Your task to perform on an android device: install app "Expedia: Hotels, Flights & Car" Image 0: 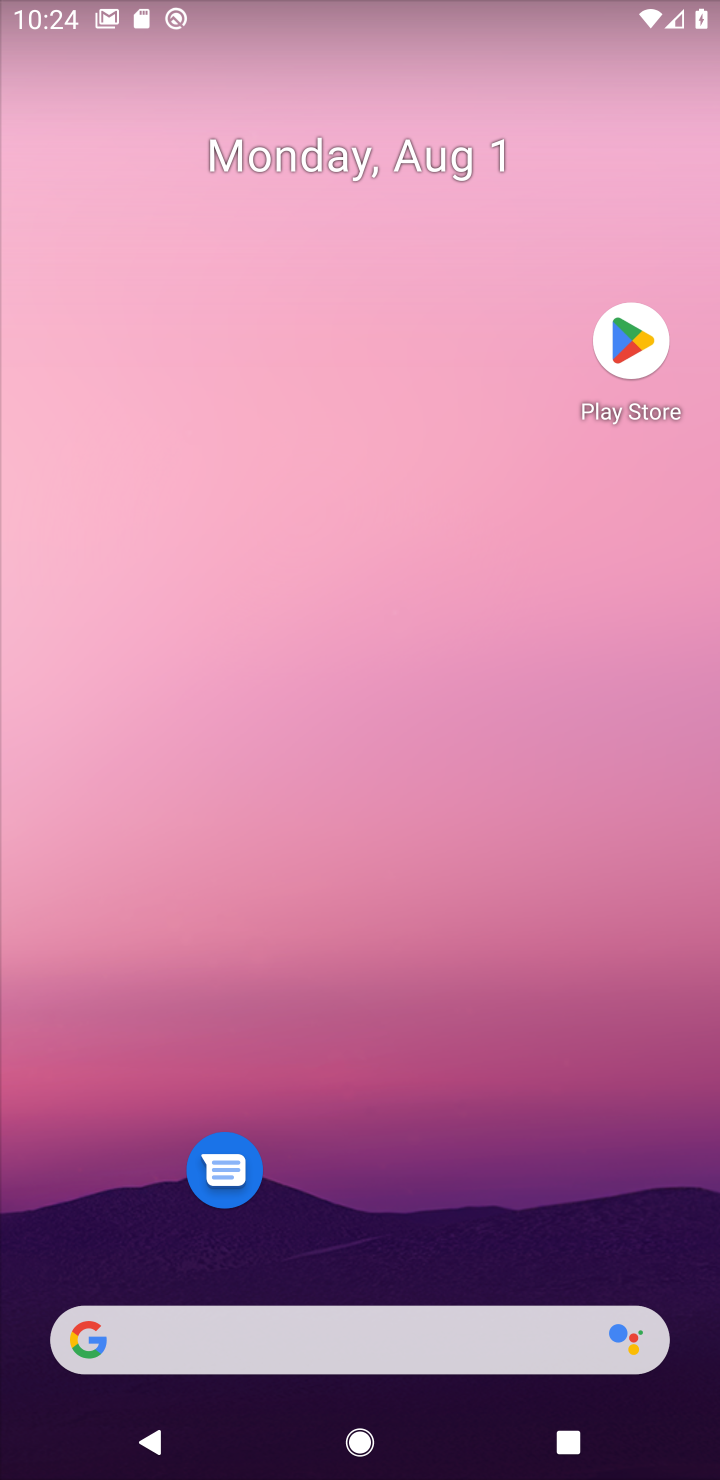
Step 0: drag from (312, 978) to (436, 61)
Your task to perform on an android device: install app "Expedia: Hotels, Flights & Car" Image 1: 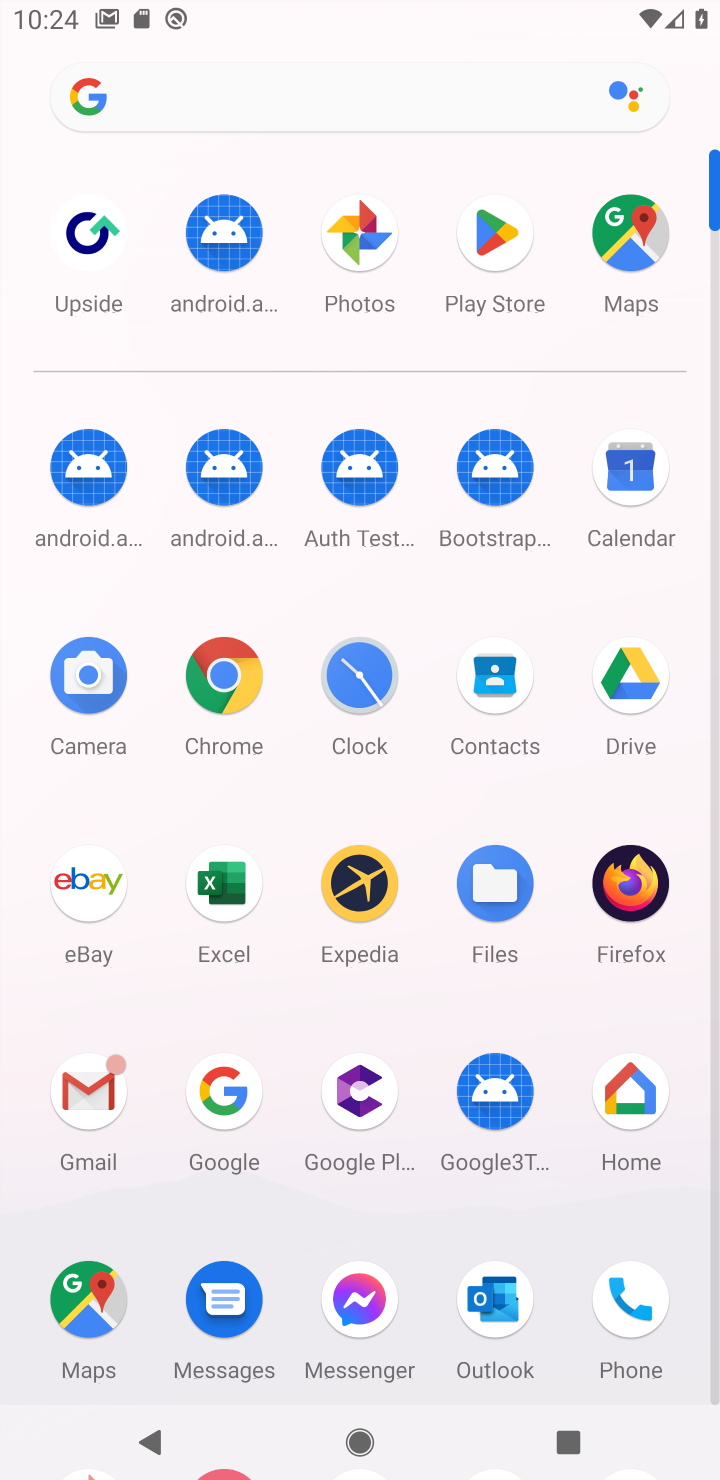
Step 1: click (518, 241)
Your task to perform on an android device: install app "Expedia: Hotels, Flights & Car" Image 2: 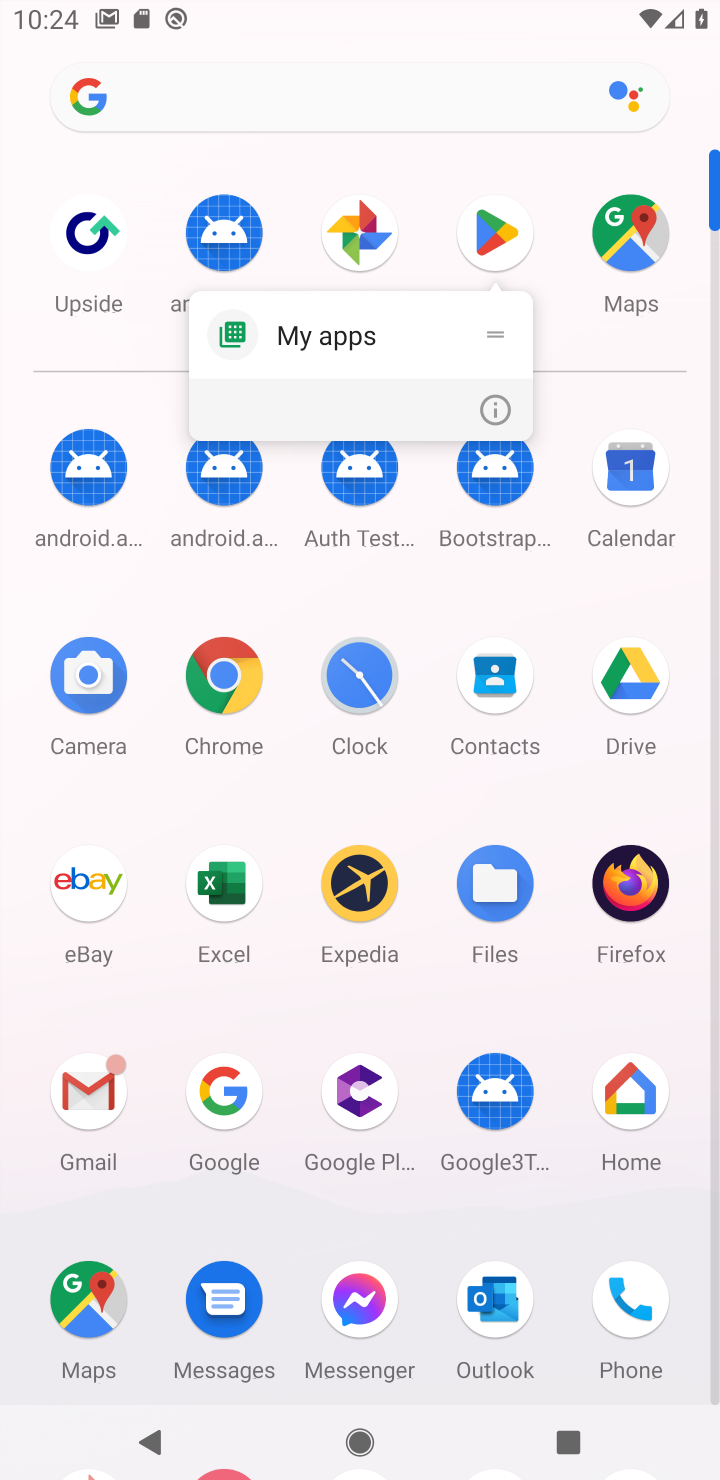
Step 2: click (340, 329)
Your task to perform on an android device: install app "Expedia: Hotels, Flights & Car" Image 3: 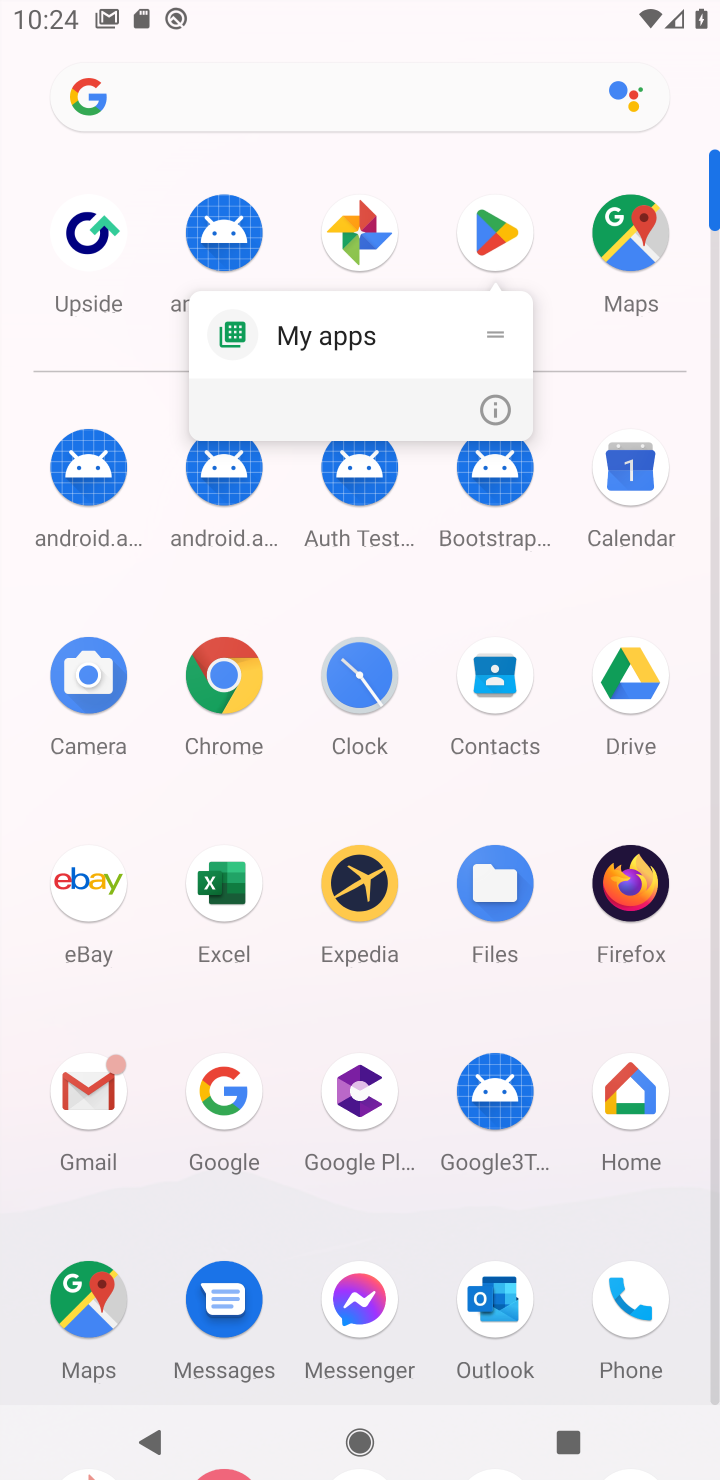
Step 3: click (340, 331)
Your task to perform on an android device: install app "Expedia: Hotels, Flights & Car" Image 4: 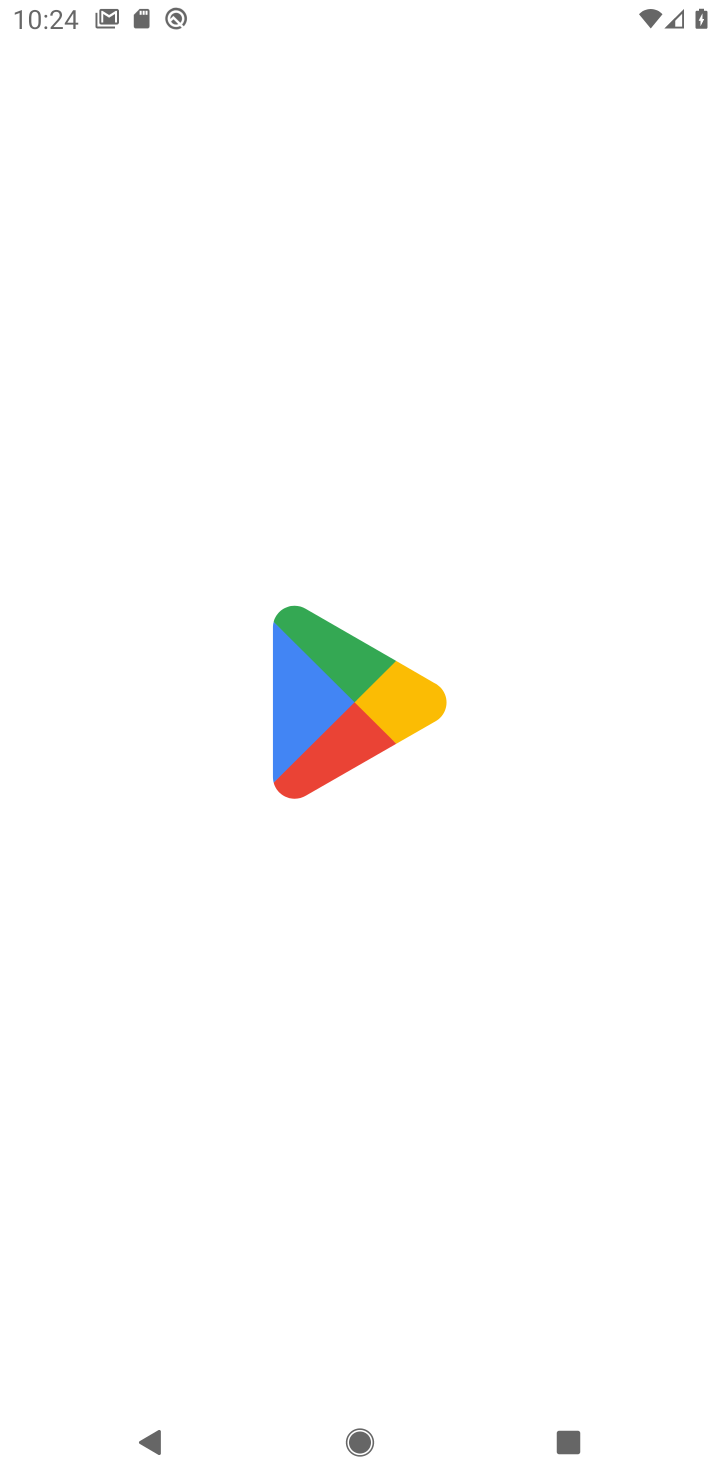
Step 4: click (350, 322)
Your task to perform on an android device: install app "Expedia: Hotels, Flights & Car" Image 5: 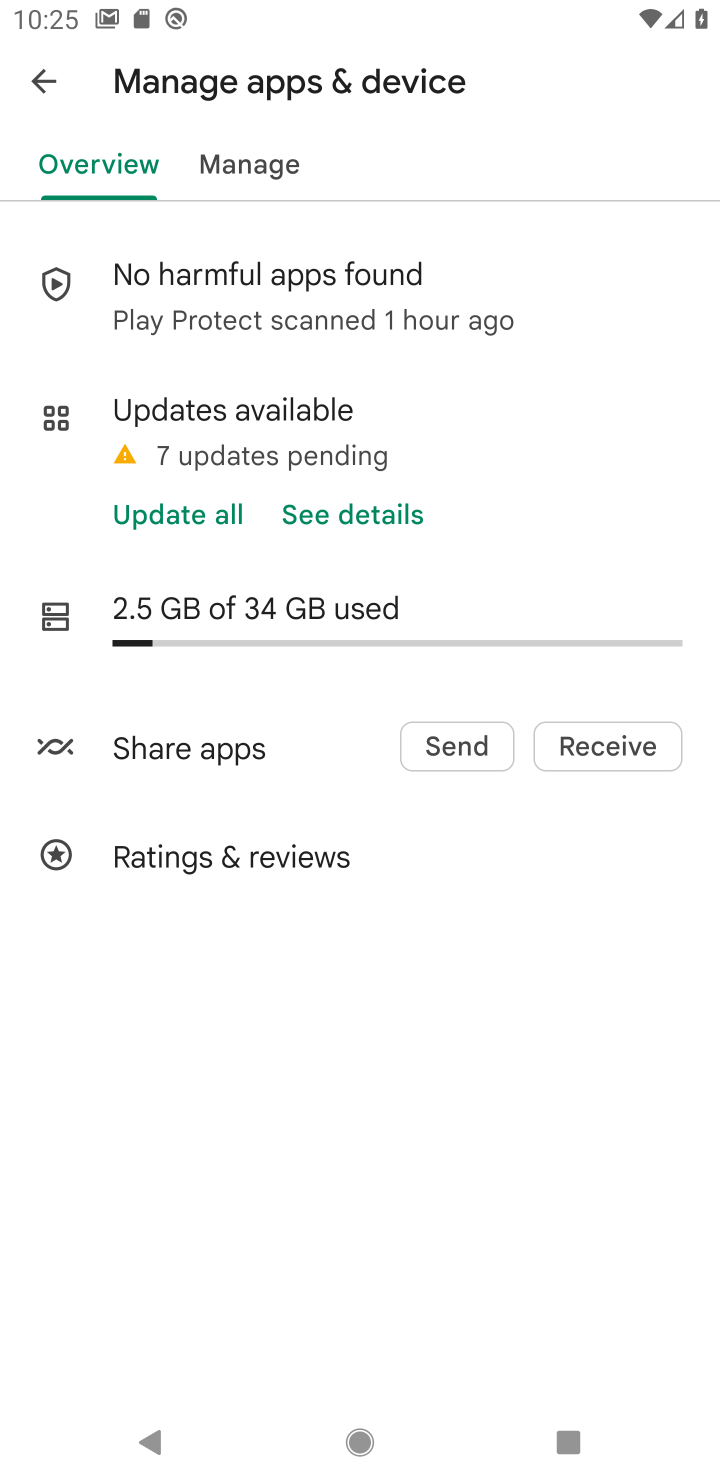
Step 5: click (34, 90)
Your task to perform on an android device: install app "Expedia: Hotels, Flights & Car" Image 6: 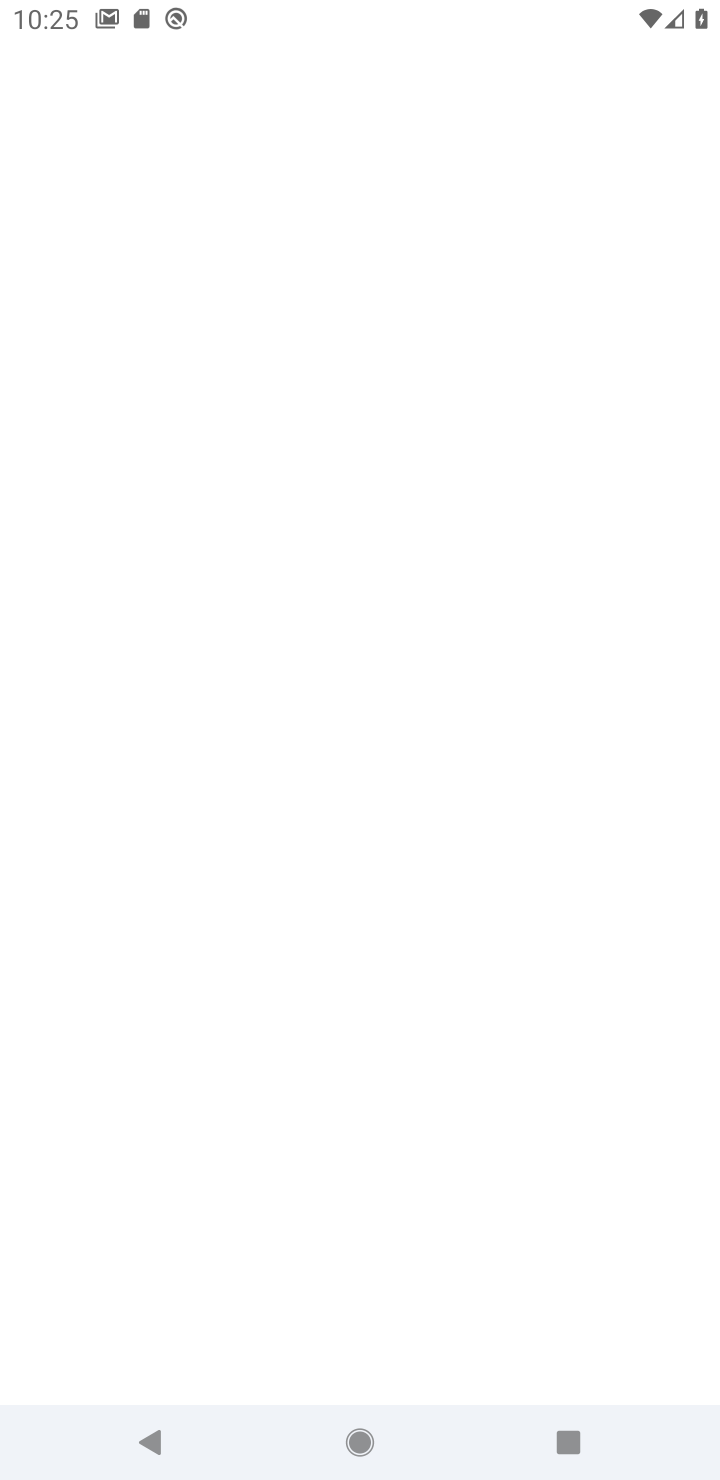
Step 6: click (58, 77)
Your task to perform on an android device: install app "Expedia: Hotels, Flights & Car" Image 7: 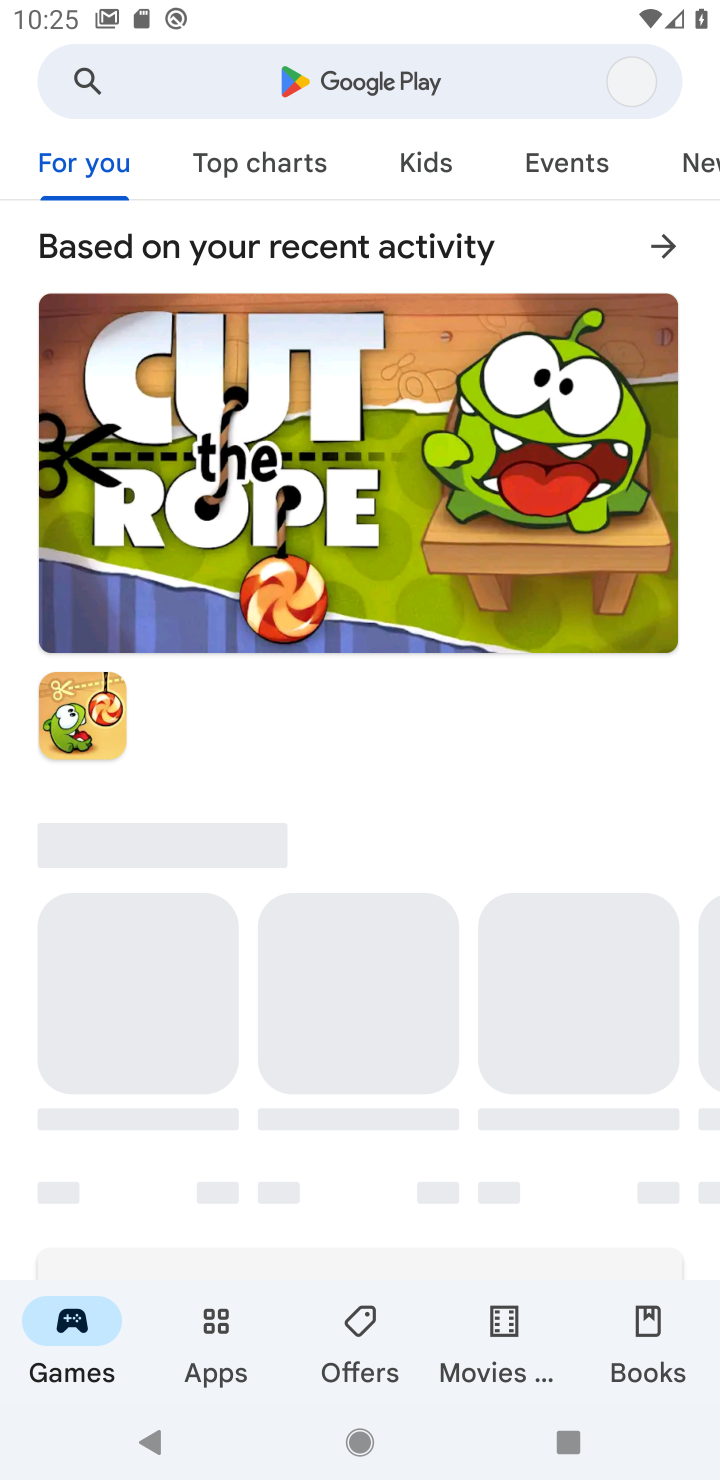
Step 7: click (58, 77)
Your task to perform on an android device: install app "Expedia: Hotels, Flights & Car" Image 8: 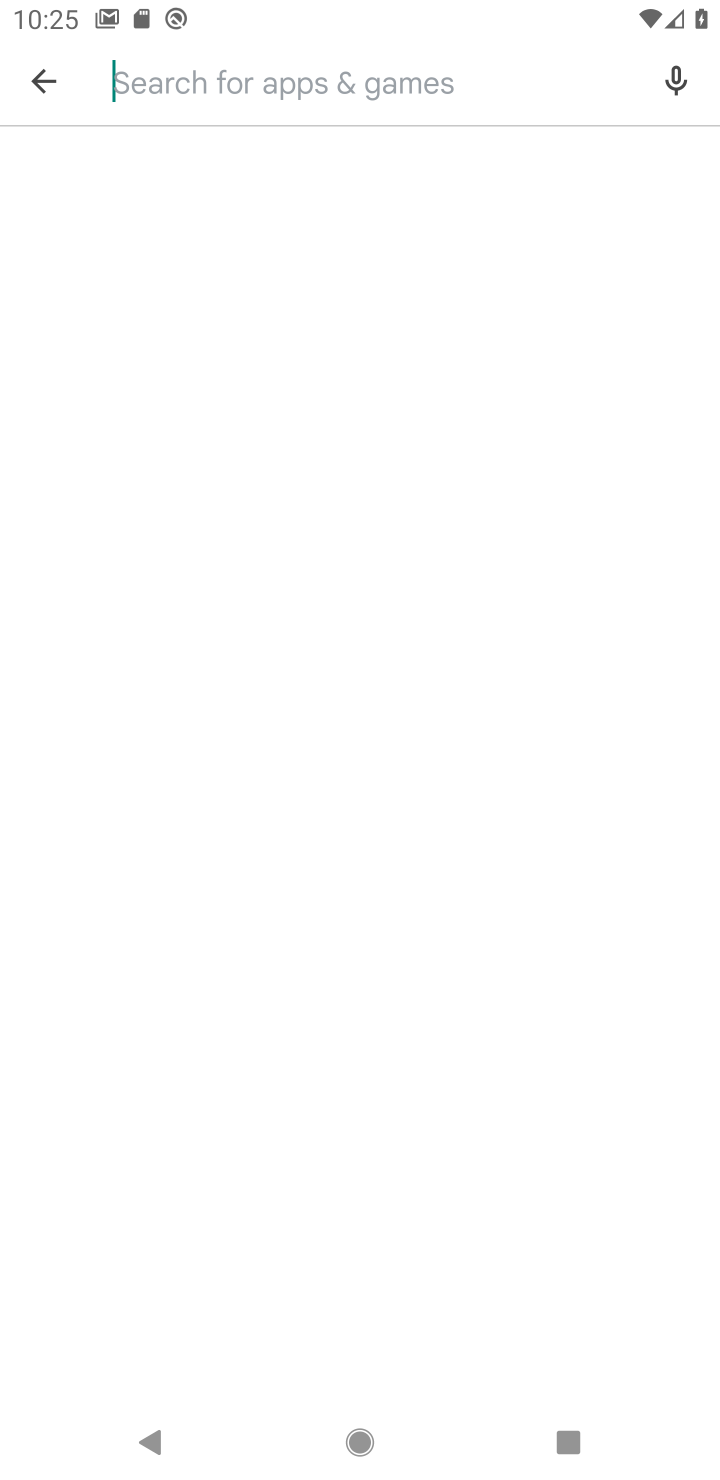
Step 8: click (57, 75)
Your task to perform on an android device: install app "Expedia: Hotels, Flights & Car" Image 9: 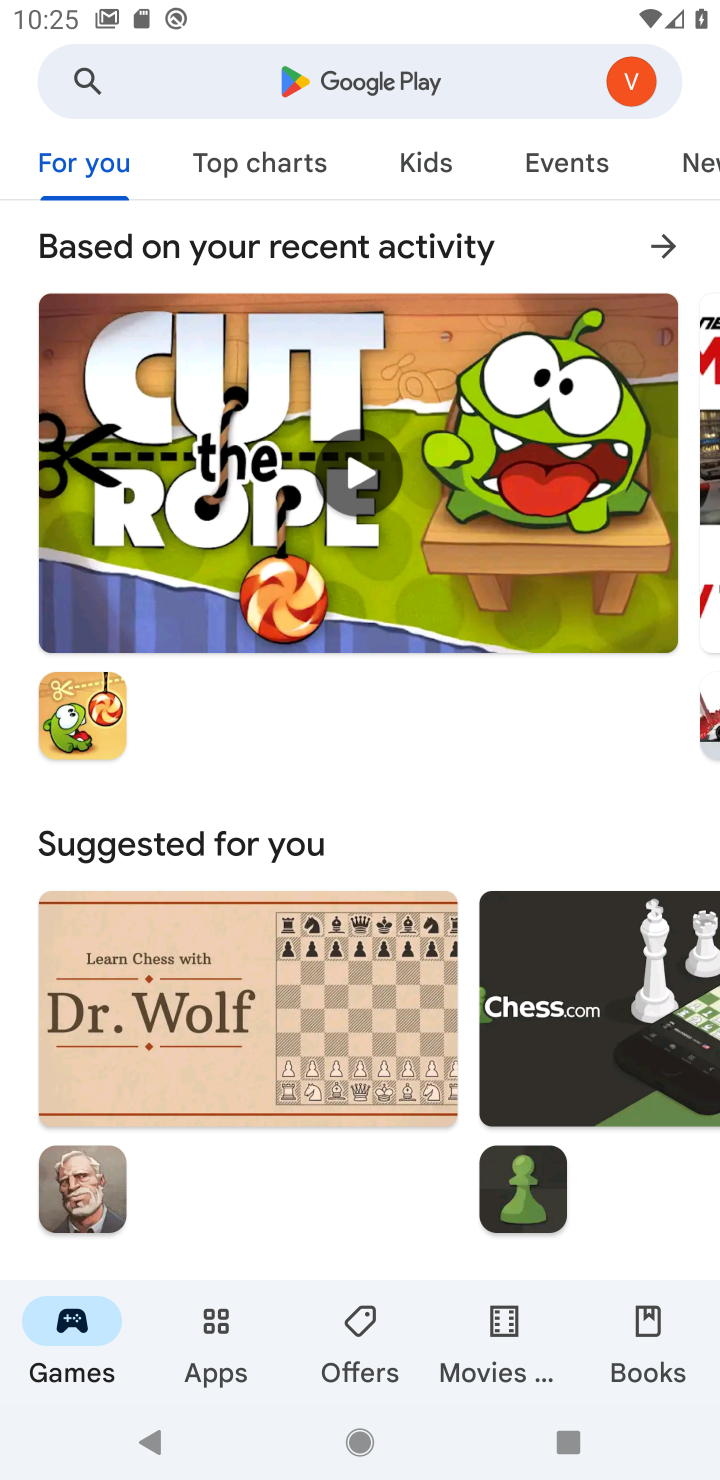
Step 9: click (240, 100)
Your task to perform on an android device: install app "Expedia: Hotels, Flights & Car" Image 10: 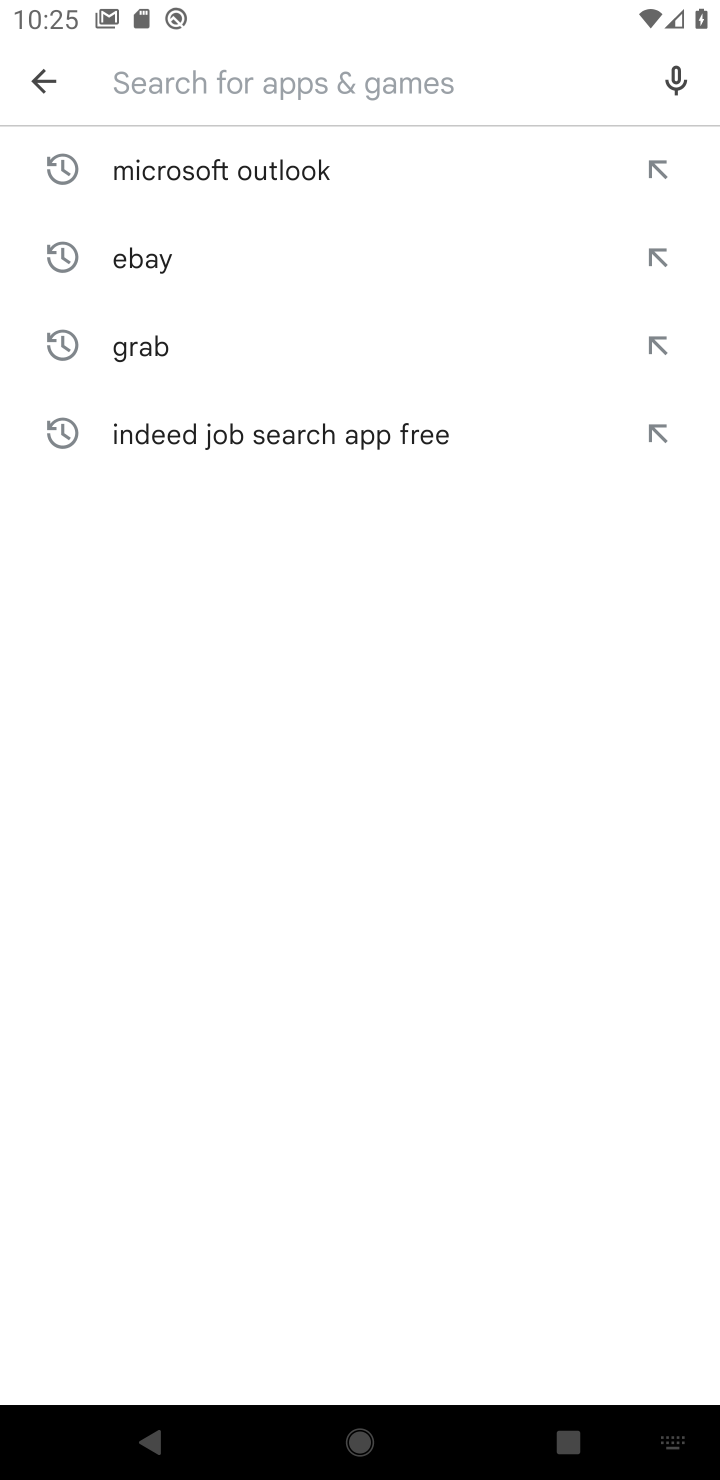
Step 10: type "expedia"
Your task to perform on an android device: install app "Expedia: Hotels, Flights & Car" Image 11: 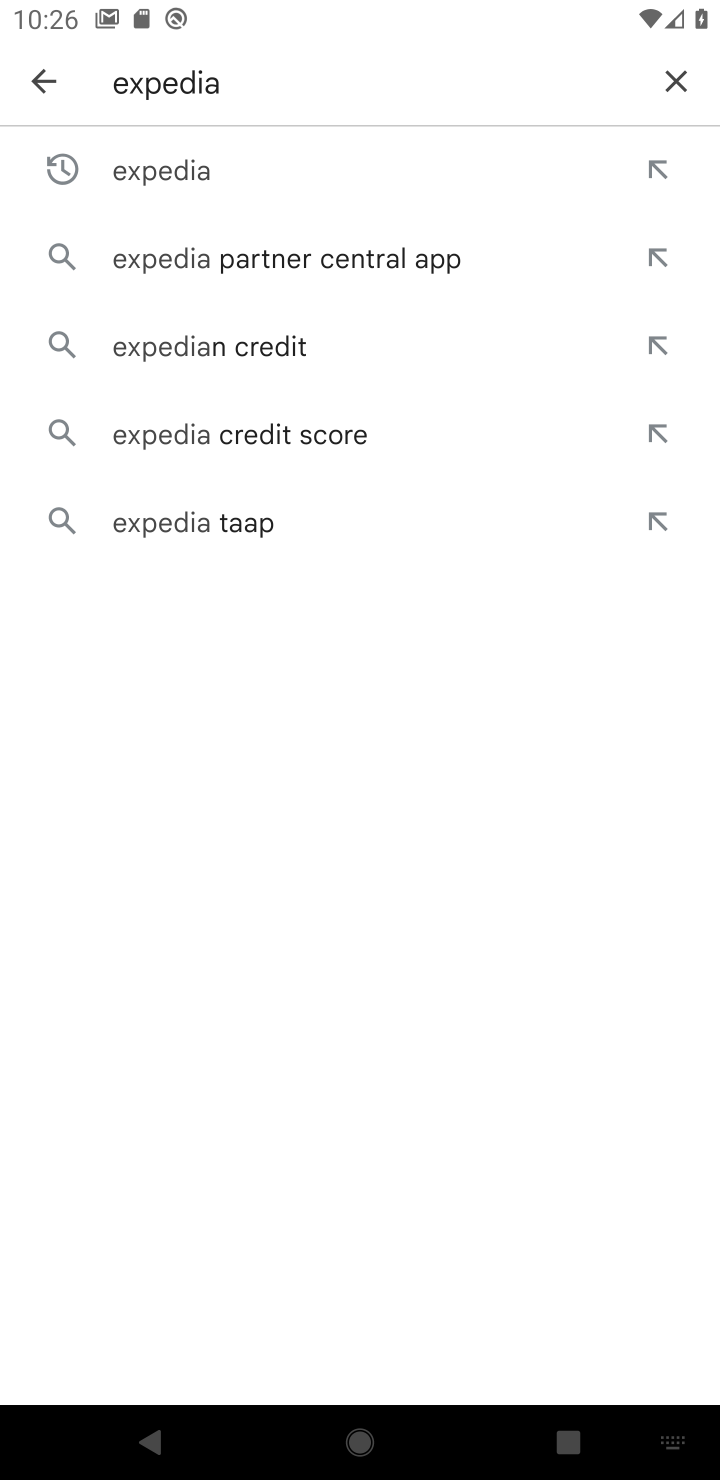
Step 11: click (643, 150)
Your task to perform on an android device: install app "Expedia: Hotels, Flights & Car" Image 12: 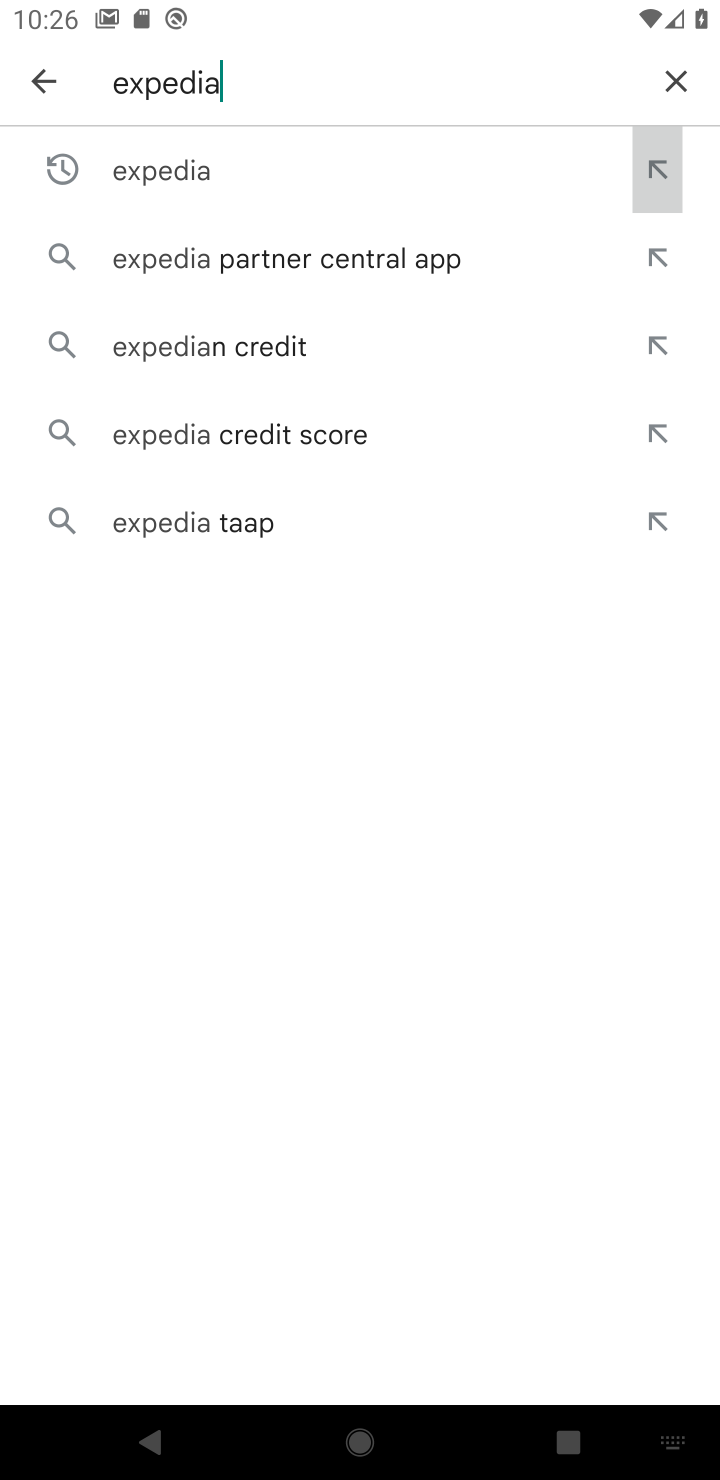
Step 12: click (644, 152)
Your task to perform on an android device: install app "Expedia: Hotels, Flights & Car" Image 13: 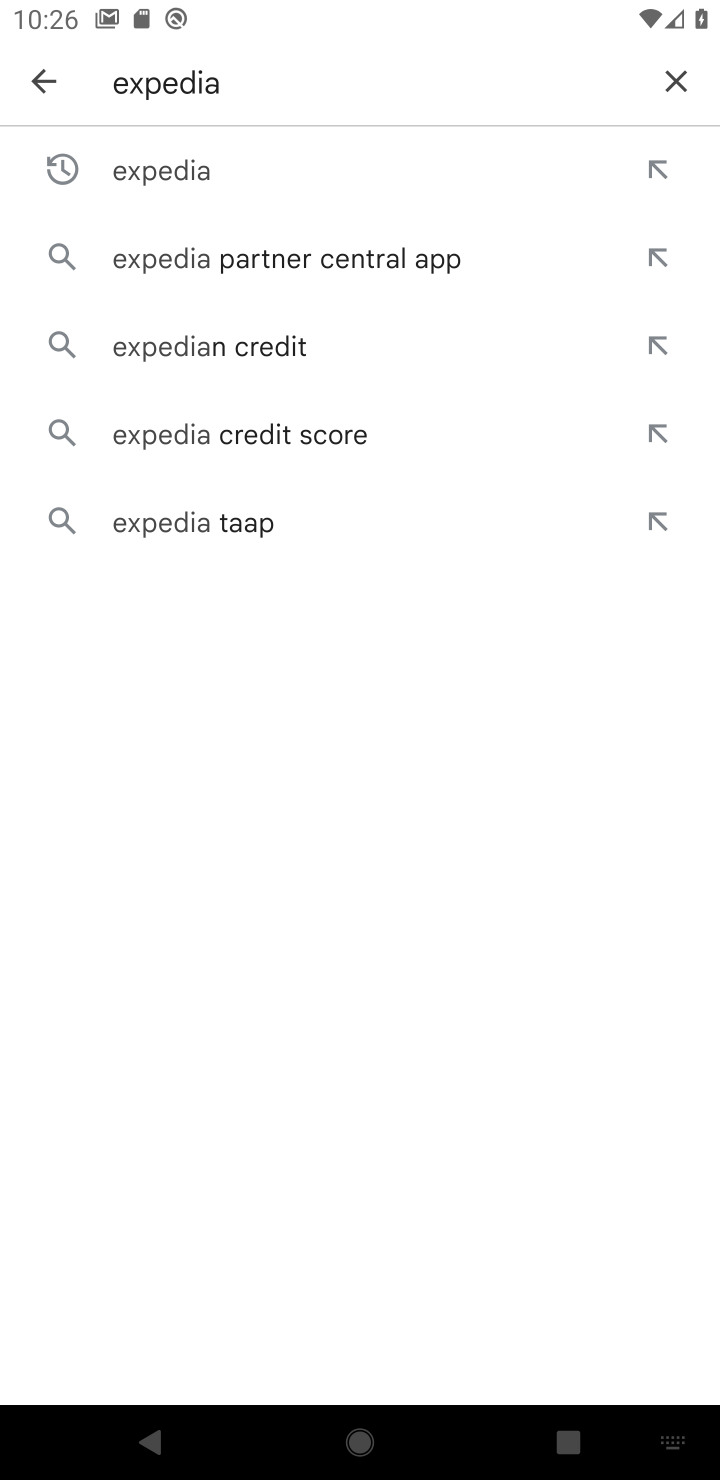
Step 13: drag from (235, 173) to (156, 156)
Your task to perform on an android device: install app "Expedia: Hotels, Flights & Car" Image 14: 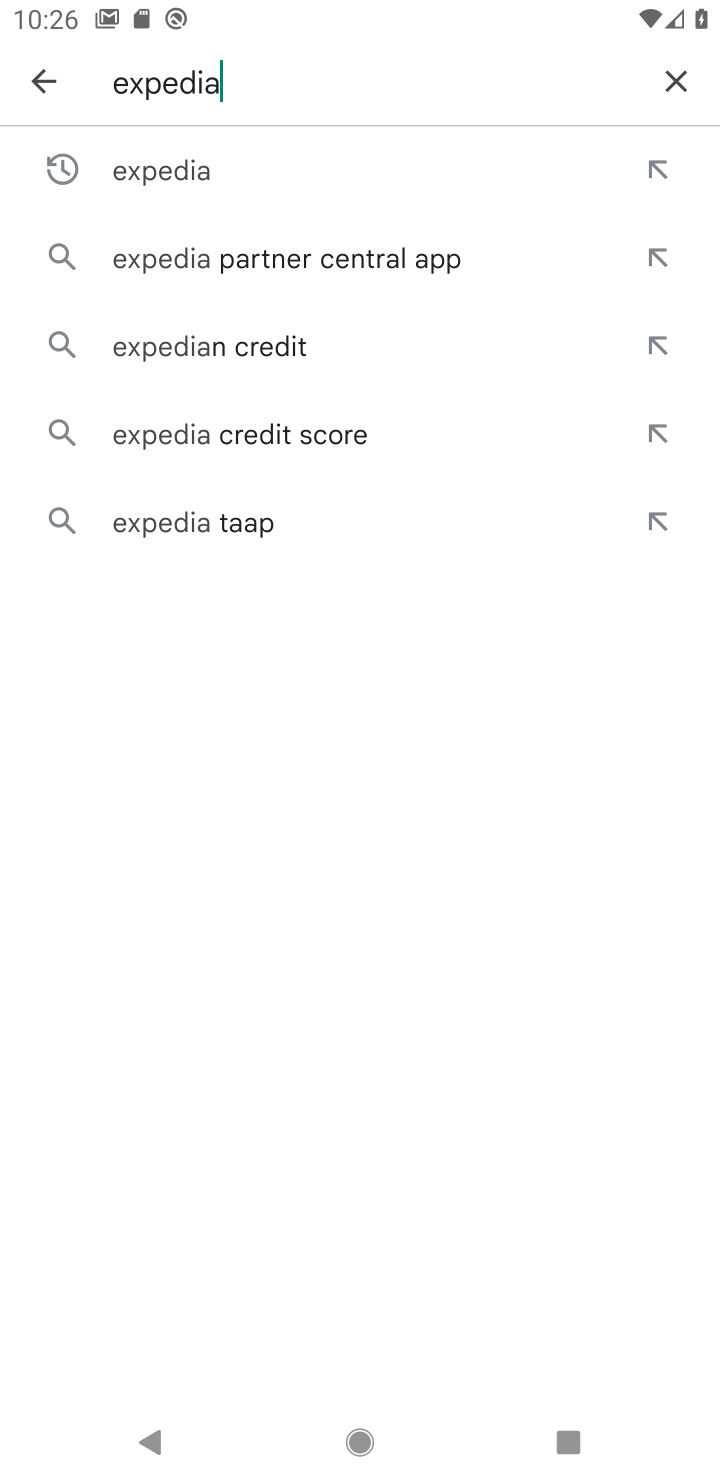
Step 14: click (174, 165)
Your task to perform on an android device: install app "Expedia: Hotels, Flights & Car" Image 15: 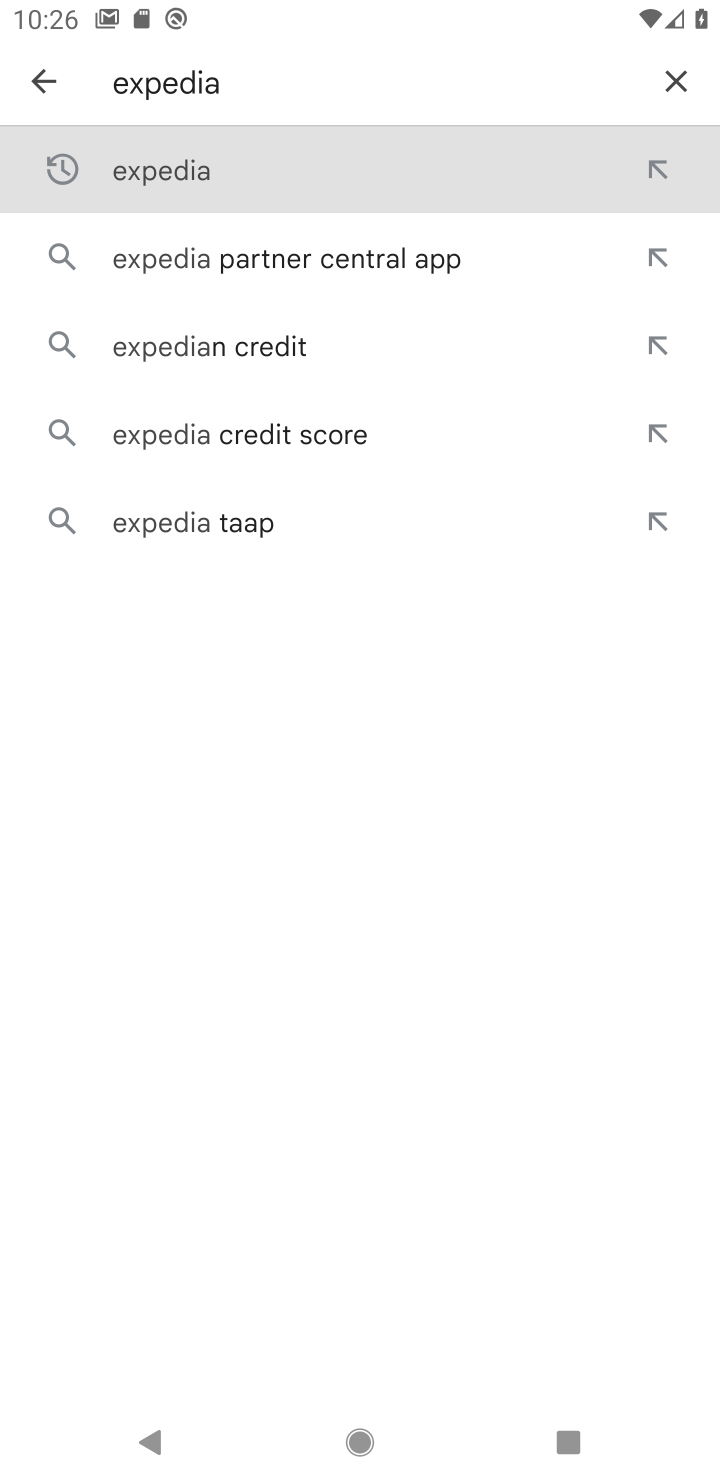
Step 15: click (177, 176)
Your task to perform on an android device: install app "Expedia: Hotels, Flights & Car" Image 16: 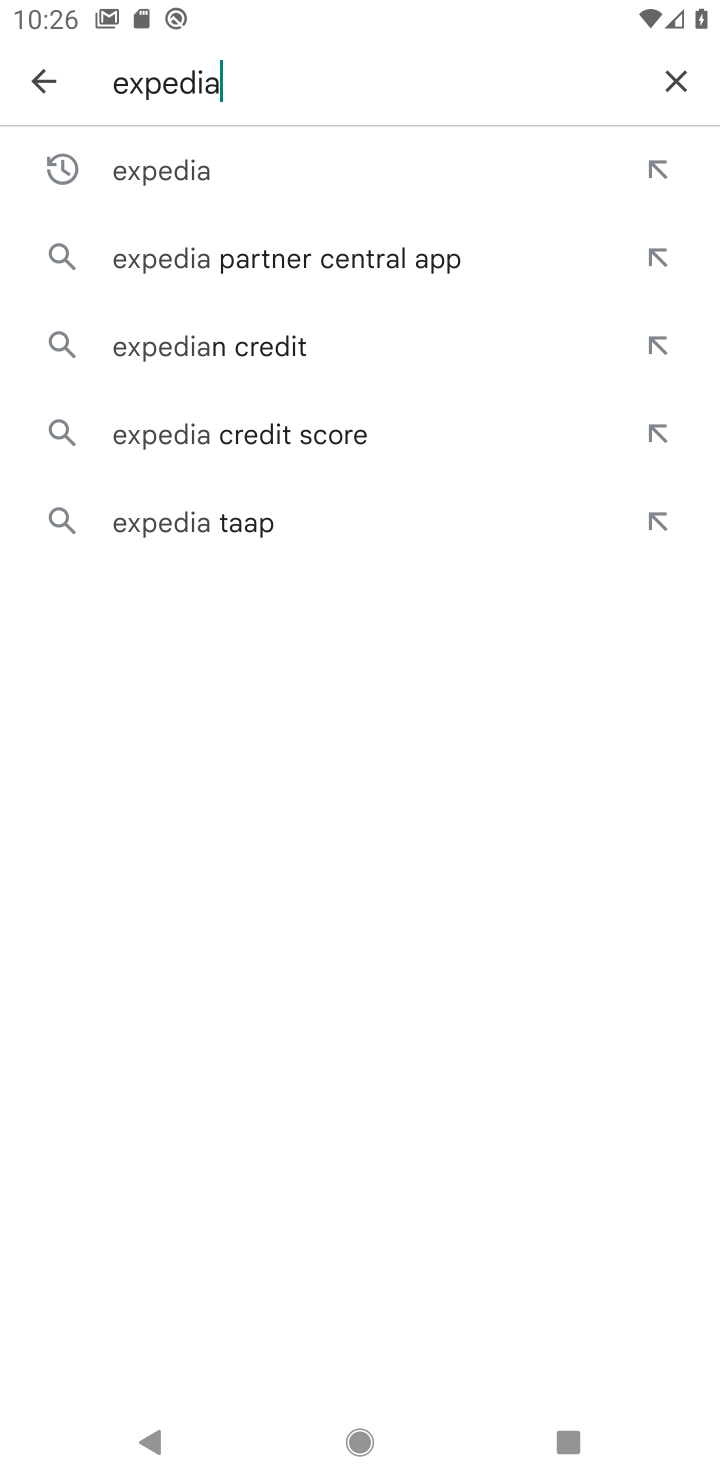
Step 16: click (181, 178)
Your task to perform on an android device: install app "Expedia: Hotels, Flights & Car" Image 17: 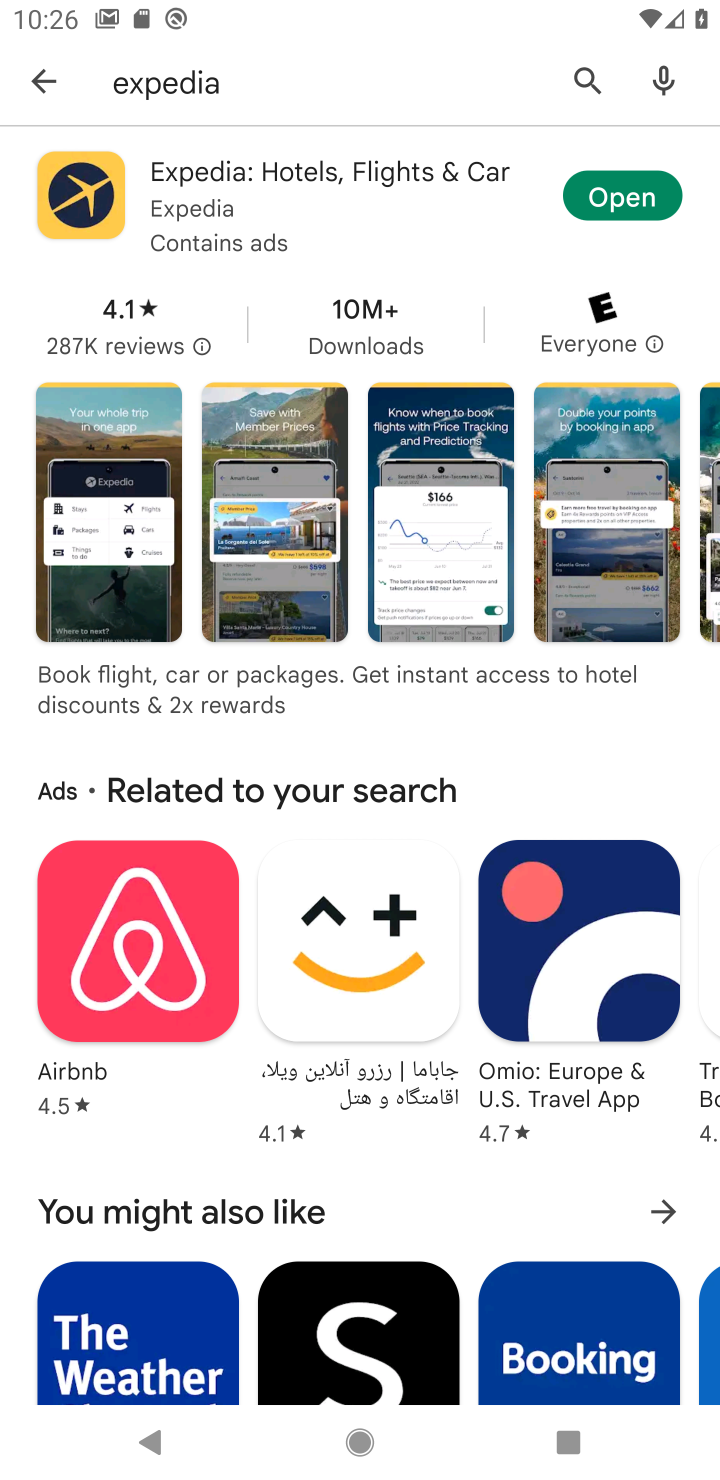
Step 17: click (614, 191)
Your task to perform on an android device: install app "Expedia: Hotels, Flights & Car" Image 18: 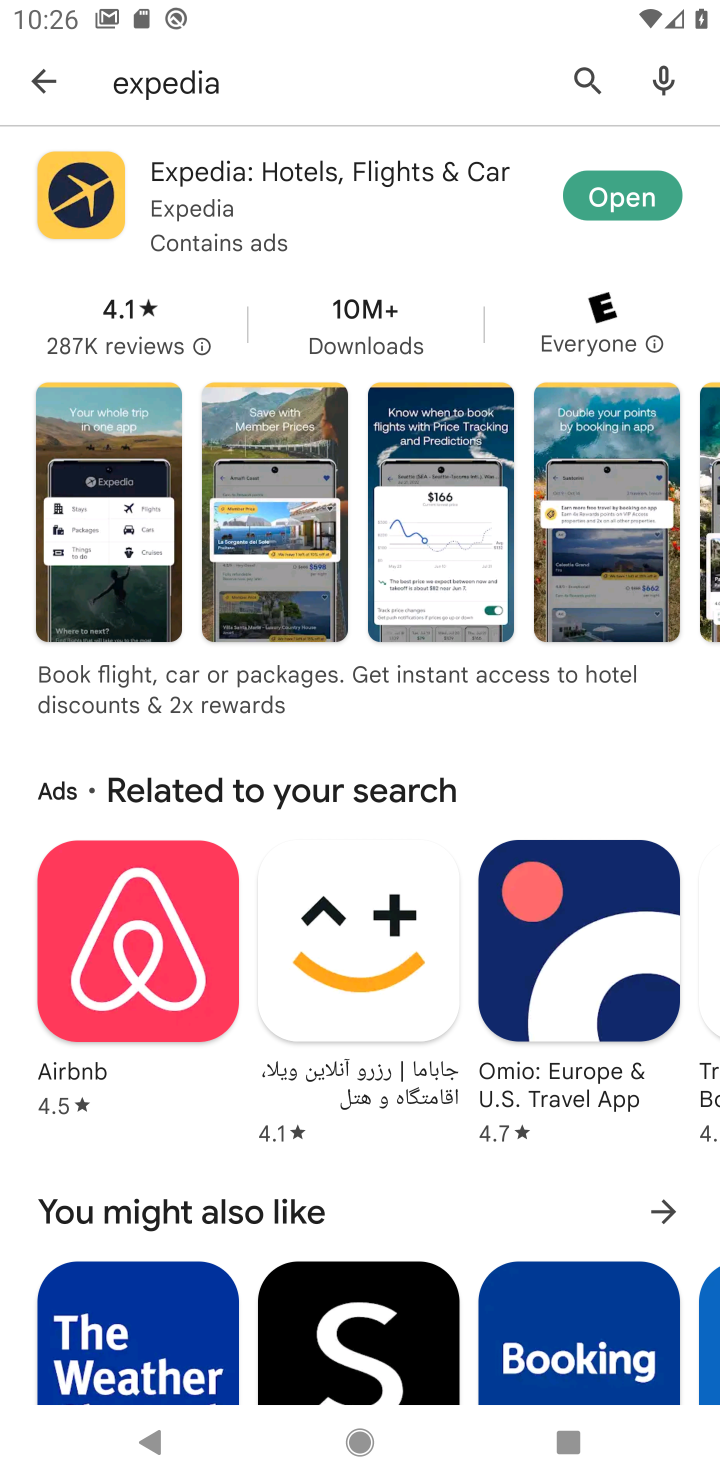
Step 18: click (633, 204)
Your task to perform on an android device: install app "Expedia: Hotels, Flights & Car" Image 19: 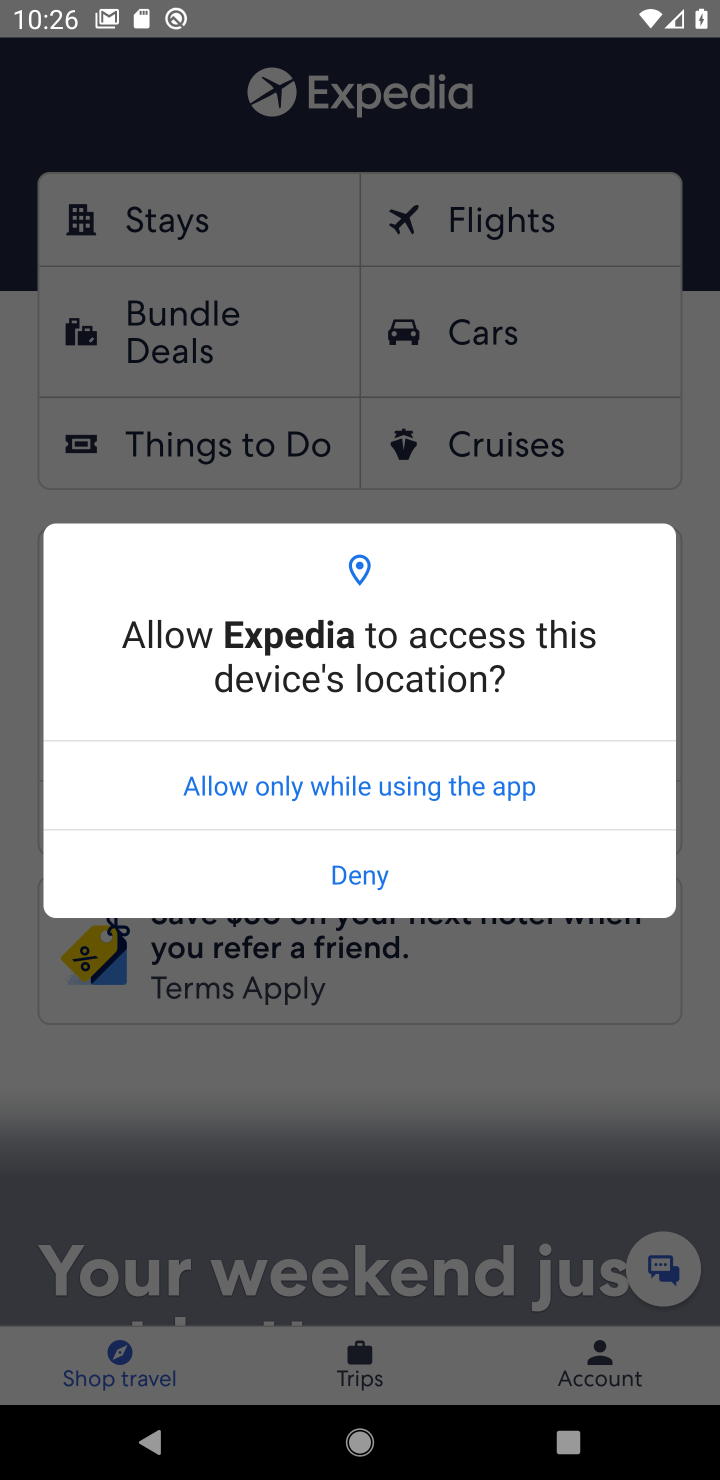
Step 19: click (324, 798)
Your task to perform on an android device: install app "Expedia: Hotels, Flights & Car" Image 20: 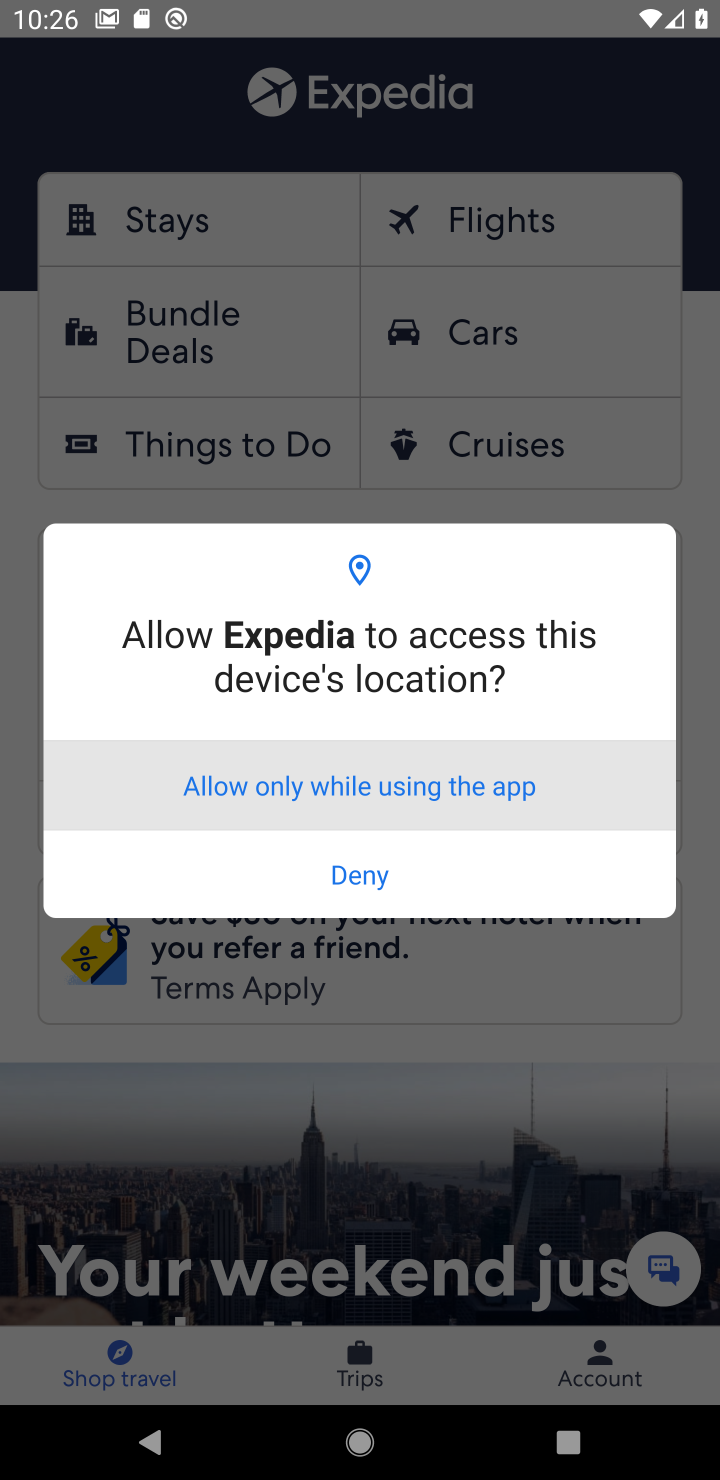
Step 20: click (324, 792)
Your task to perform on an android device: install app "Expedia: Hotels, Flights & Car" Image 21: 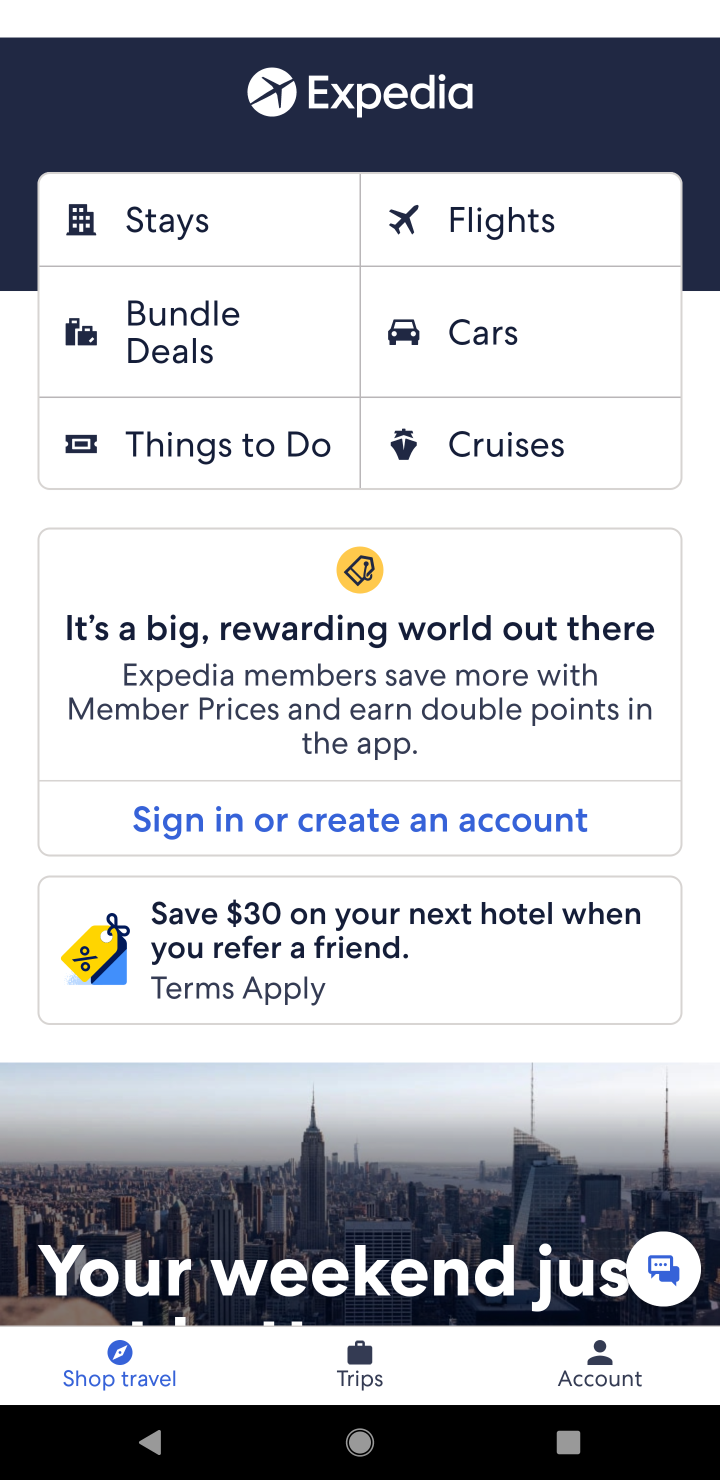
Step 21: click (333, 781)
Your task to perform on an android device: install app "Expedia: Hotels, Flights & Car" Image 22: 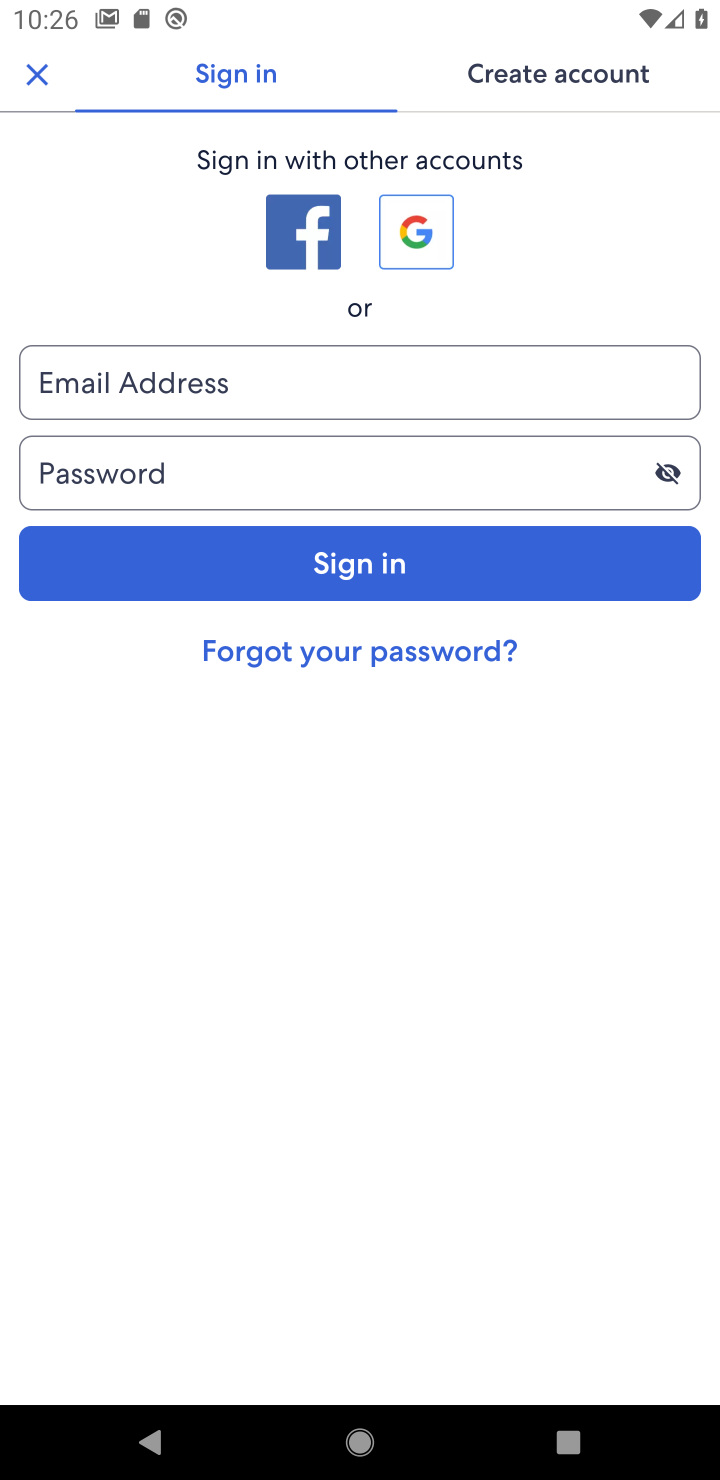
Step 22: task complete